Your task to perform on an android device: Open Google Maps Image 0: 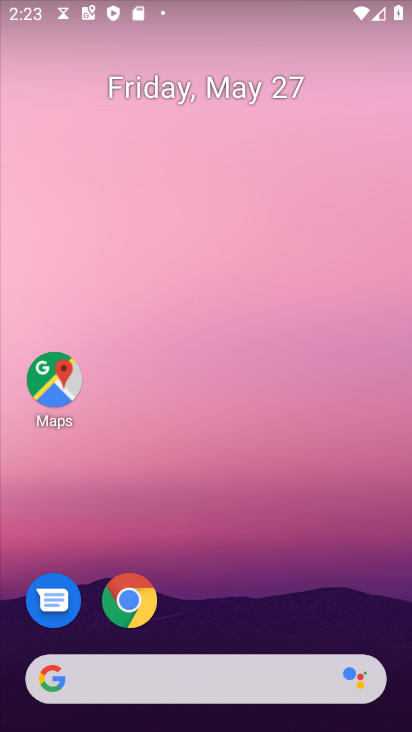
Step 0: drag from (269, 559) to (186, 24)
Your task to perform on an android device: Open Google Maps Image 1: 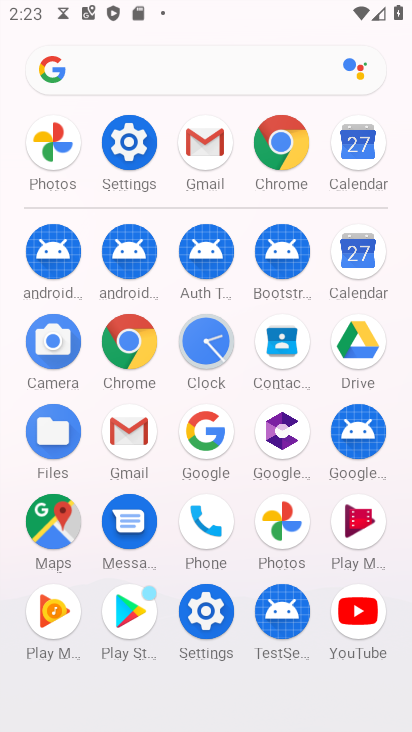
Step 1: drag from (19, 548) to (11, 281)
Your task to perform on an android device: Open Google Maps Image 2: 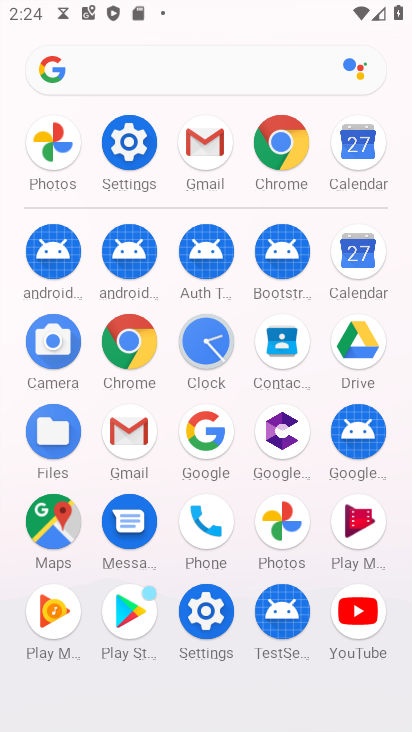
Step 2: click (48, 518)
Your task to perform on an android device: Open Google Maps Image 3: 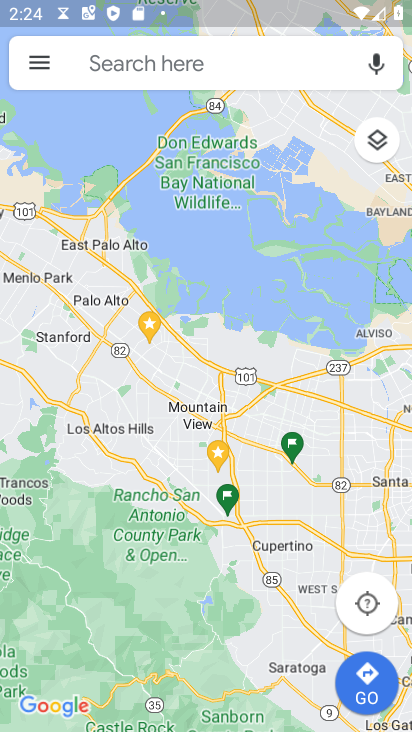
Step 3: task complete